Your task to perform on an android device: Open the map Image 0: 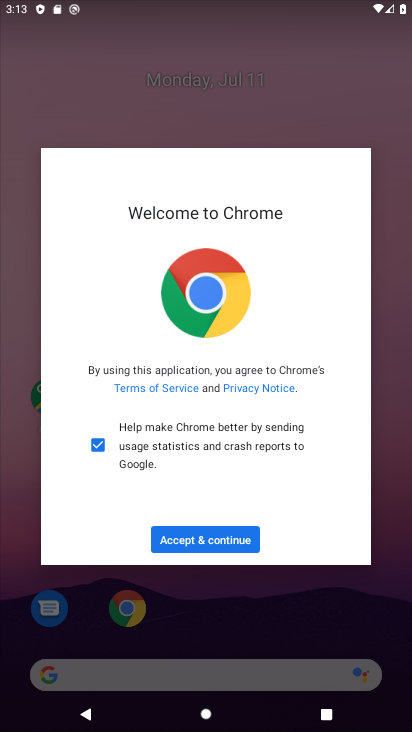
Step 0: press home button
Your task to perform on an android device: Open the map Image 1: 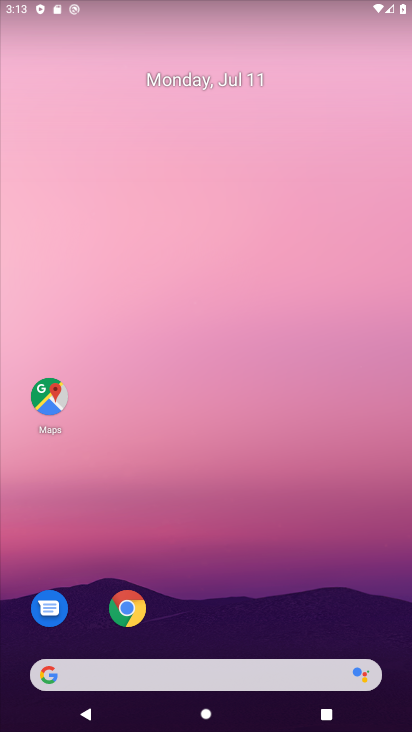
Step 1: click (47, 397)
Your task to perform on an android device: Open the map Image 2: 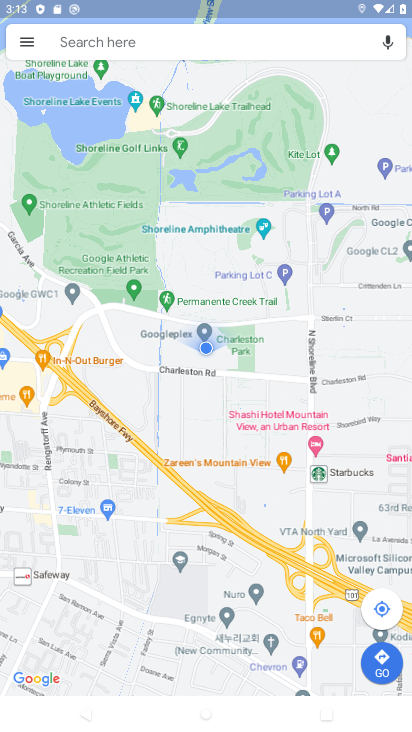
Step 2: task complete